Your task to perform on an android device: clear history in the chrome app Image 0: 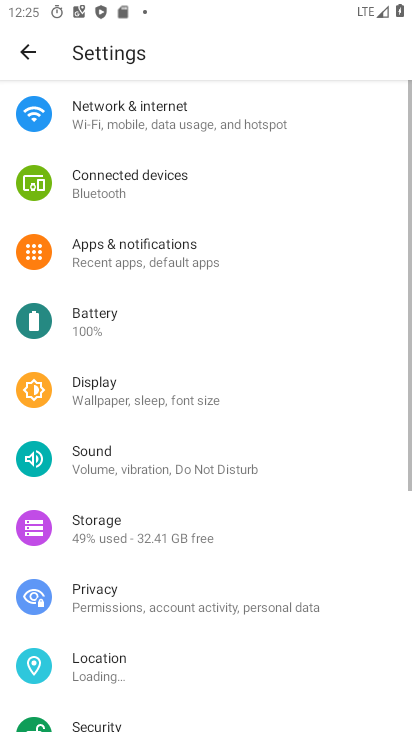
Step 0: press home button
Your task to perform on an android device: clear history in the chrome app Image 1: 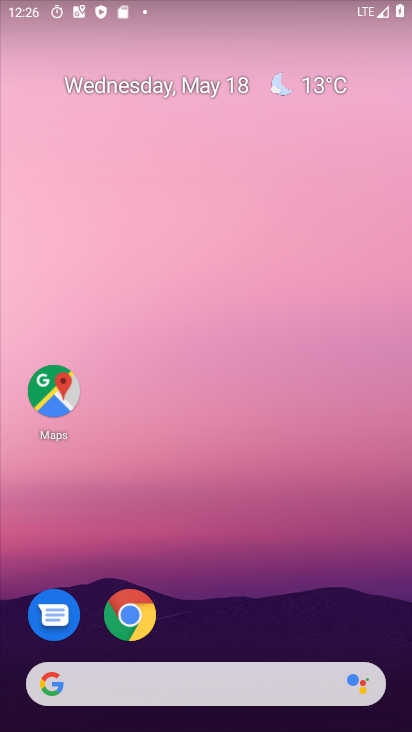
Step 1: drag from (141, 682) to (355, 105)
Your task to perform on an android device: clear history in the chrome app Image 2: 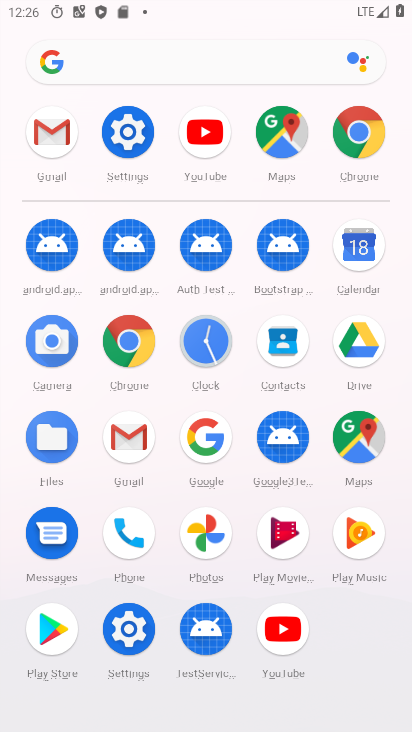
Step 2: click (366, 127)
Your task to perform on an android device: clear history in the chrome app Image 3: 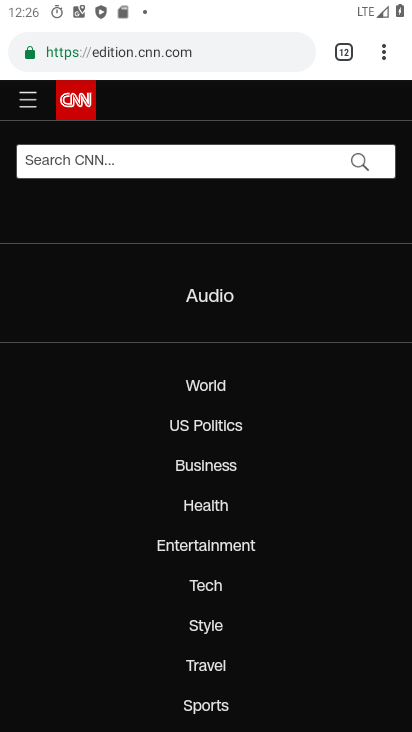
Step 3: drag from (384, 54) to (252, 290)
Your task to perform on an android device: clear history in the chrome app Image 4: 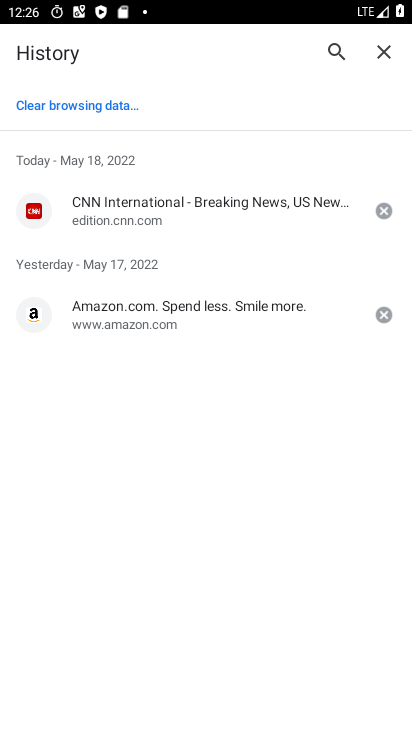
Step 4: click (36, 50)
Your task to perform on an android device: clear history in the chrome app Image 5: 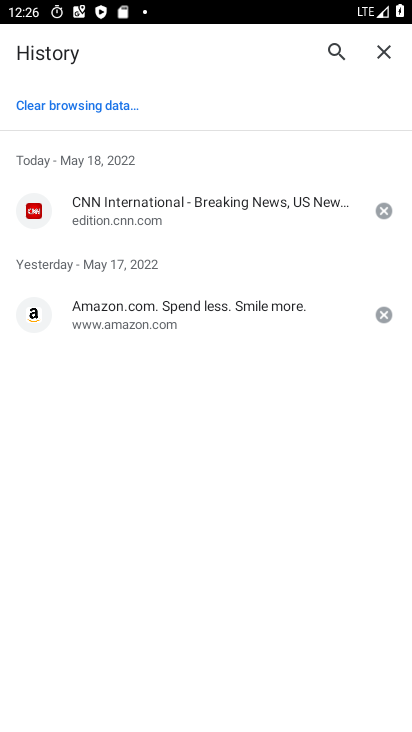
Step 5: click (68, 103)
Your task to perform on an android device: clear history in the chrome app Image 6: 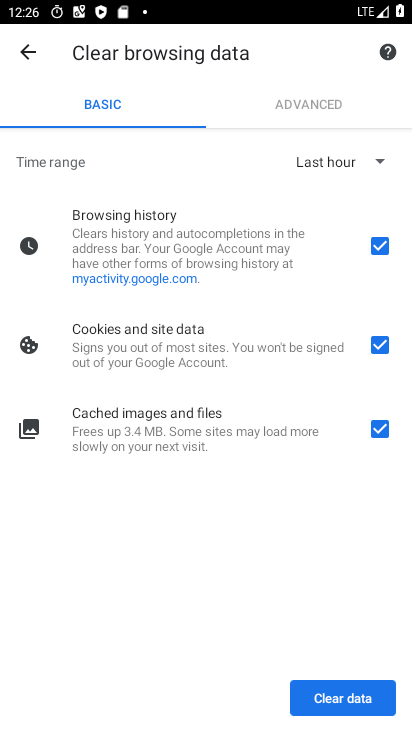
Step 6: click (343, 703)
Your task to perform on an android device: clear history in the chrome app Image 7: 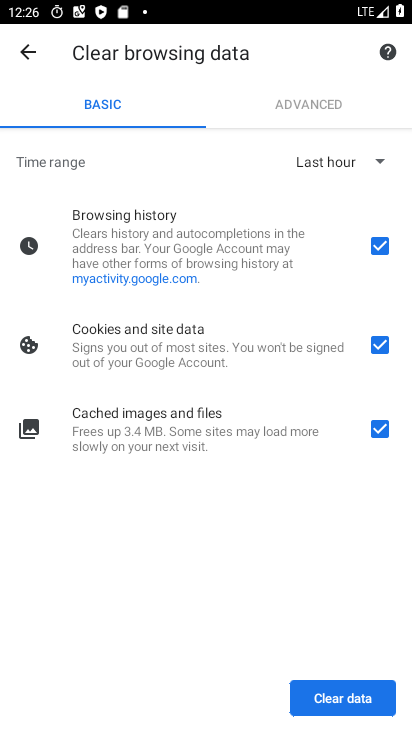
Step 7: click (345, 700)
Your task to perform on an android device: clear history in the chrome app Image 8: 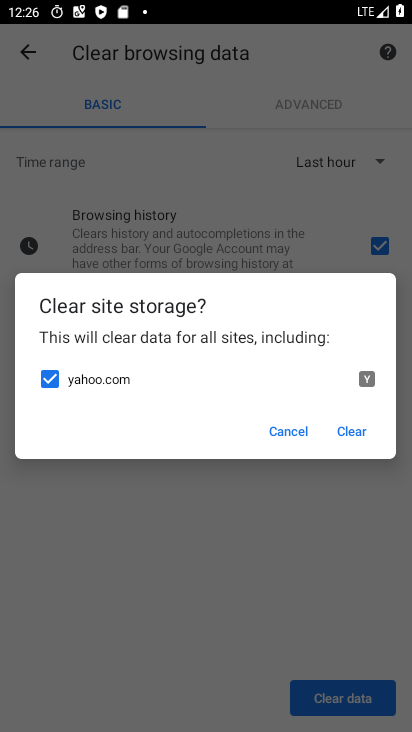
Step 8: click (361, 435)
Your task to perform on an android device: clear history in the chrome app Image 9: 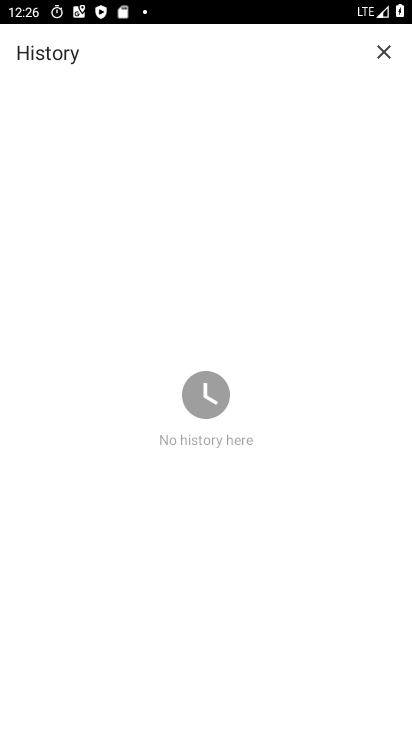
Step 9: task complete